Your task to perform on an android device: Go to settings Image 0: 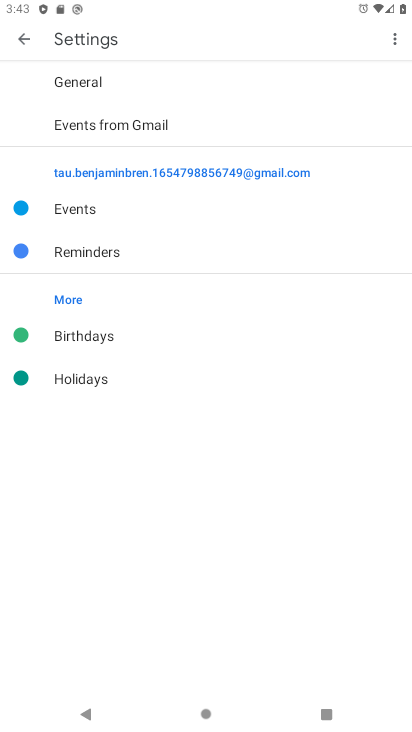
Step 0: press home button
Your task to perform on an android device: Go to settings Image 1: 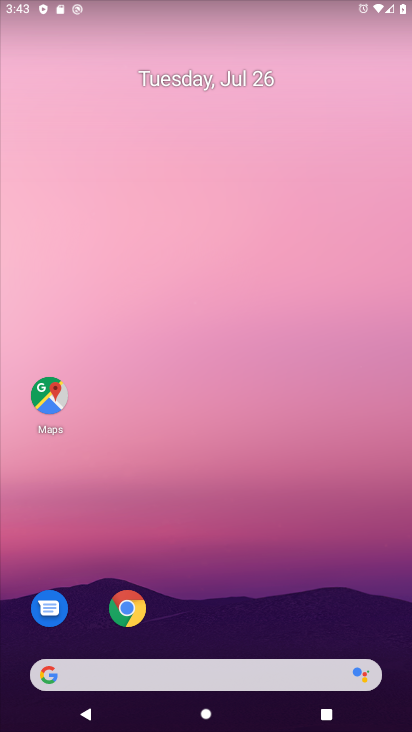
Step 1: drag from (390, 663) to (294, 64)
Your task to perform on an android device: Go to settings Image 2: 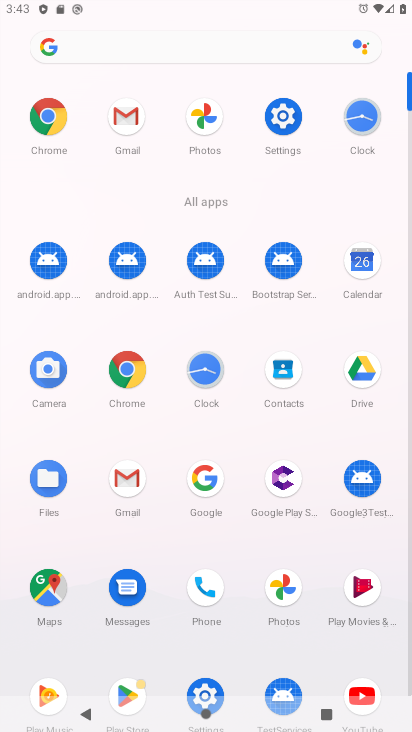
Step 2: click (282, 129)
Your task to perform on an android device: Go to settings Image 3: 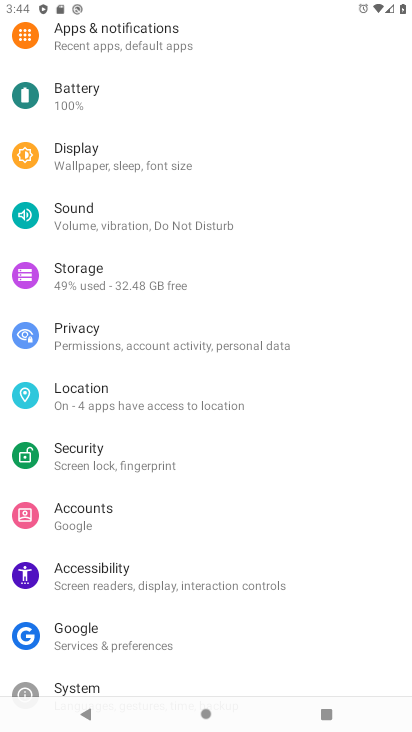
Step 3: task complete